Your task to perform on an android device: toggle javascript in the chrome app Image 0: 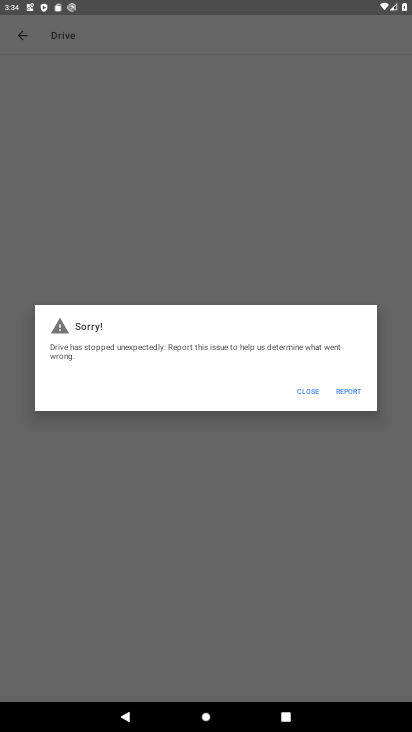
Step 0: press home button
Your task to perform on an android device: toggle javascript in the chrome app Image 1: 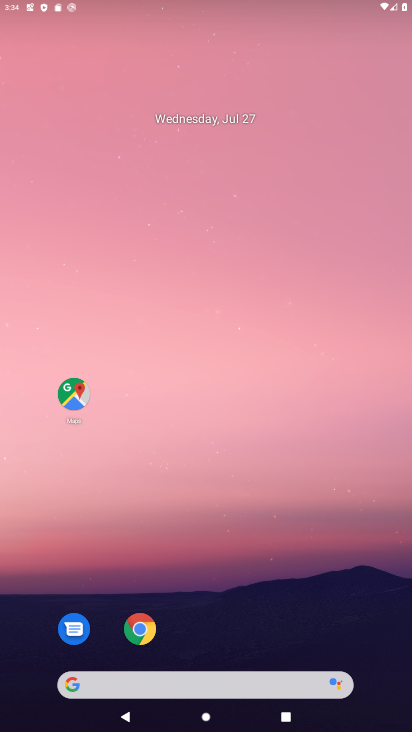
Step 1: drag from (337, 571) to (255, 40)
Your task to perform on an android device: toggle javascript in the chrome app Image 2: 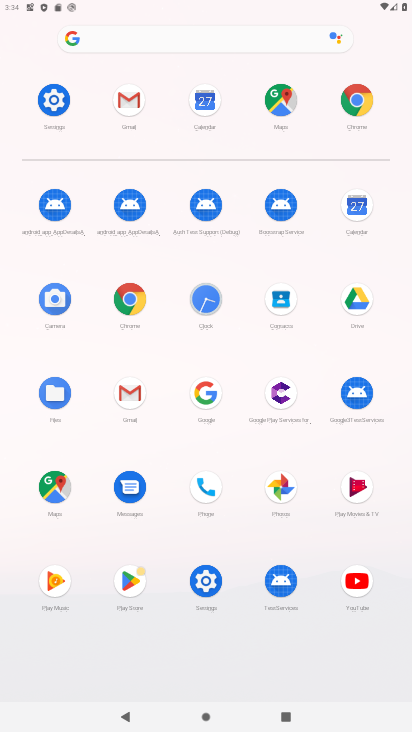
Step 2: click (364, 100)
Your task to perform on an android device: toggle javascript in the chrome app Image 3: 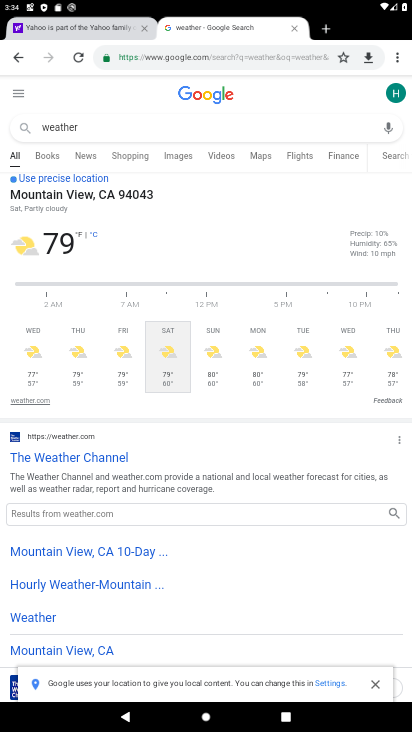
Step 3: drag from (394, 54) to (283, 356)
Your task to perform on an android device: toggle javascript in the chrome app Image 4: 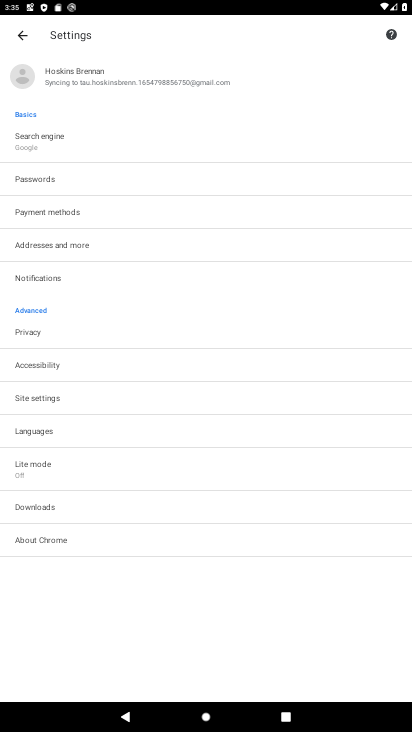
Step 4: click (71, 401)
Your task to perform on an android device: toggle javascript in the chrome app Image 5: 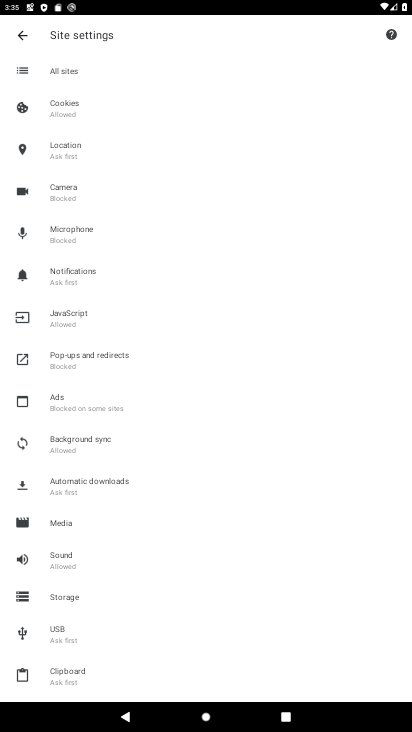
Step 5: click (81, 313)
Your task to perform on an android device: toggle javascript in the chrome app Image 6: 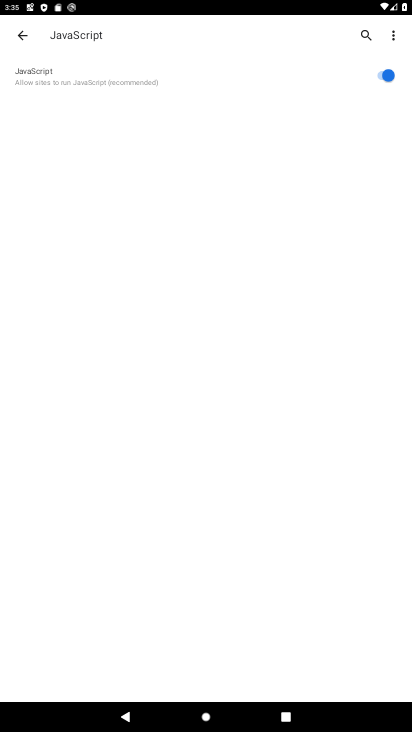
Step 6: click (382, 62)
Your task to perform on an android device: toggle javascript in the chrome app Image 7: 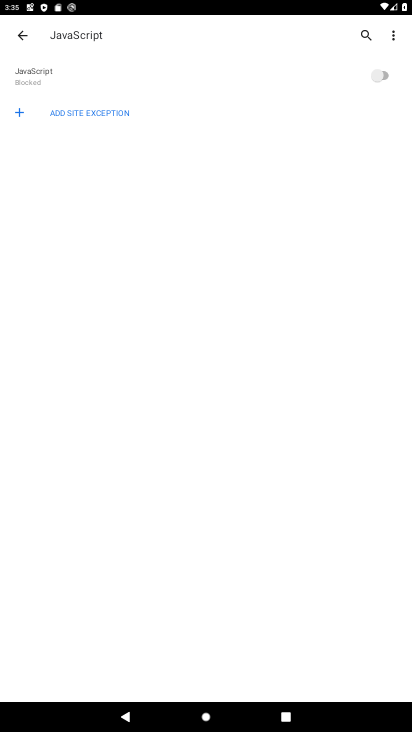
Step 7: task complete